Your task to perform on an android device: toggle pop-ups in chrome Image 0: 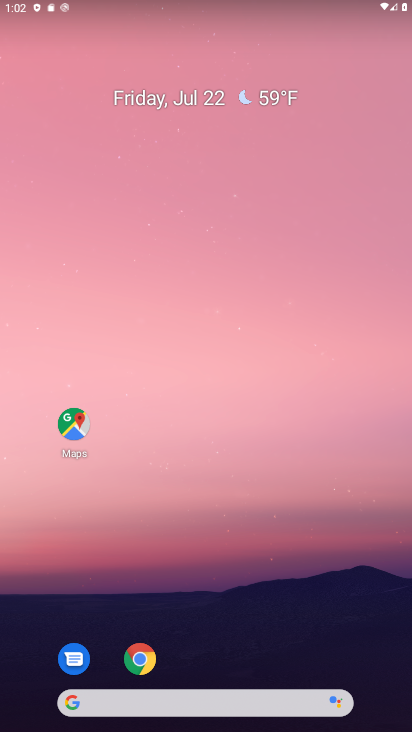
Step 0: click (139, 657)
Your task to perform on an android device: toggle pop-ups in chrome Image 1: 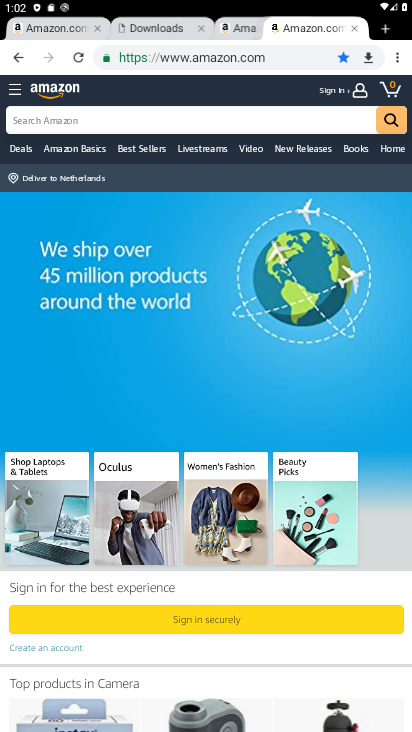
Step 1: click (396, 46)
Your task to perform on an android device: toggle pop-ups in chrome Image 2: 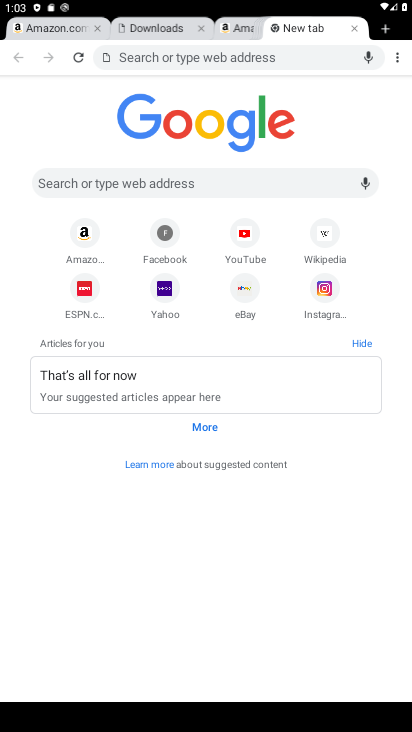
Step 2: click (395, 51)
Your task to perform on an android device: toggle pop-ups in chrome Image 3: 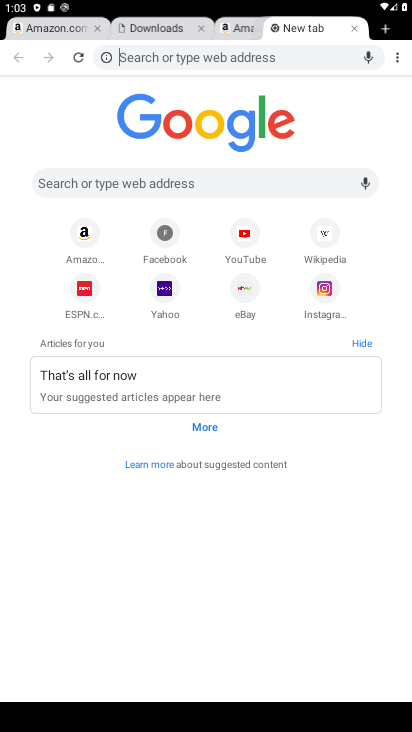
Step 3: drag from (394, 63) to (307, 259)
Your task to perform on an android device: toggle pop-ups in chrome Image 4: 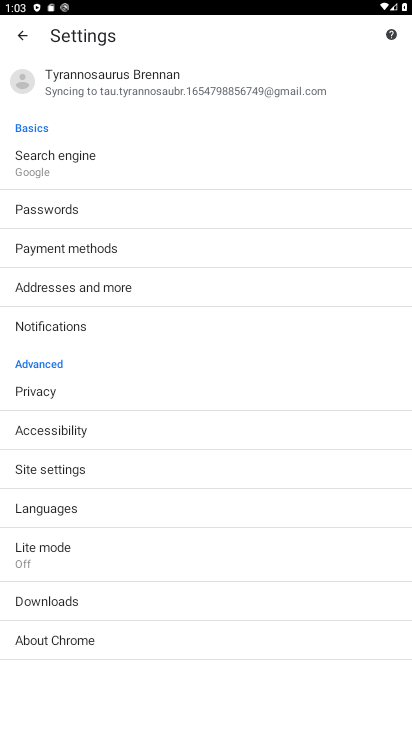
Step 4: click (75, 467)
Your task to perform on an android device: toggle pop-ups in chrome Image 5: 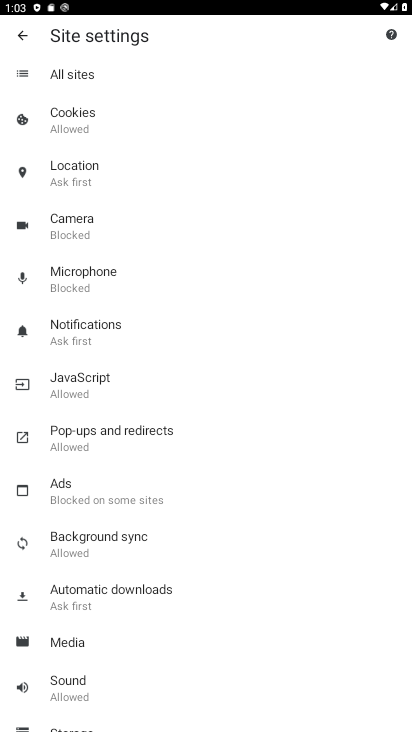
Step 5: click (141, 444)
Your task to perform on an android device: toggle pop-ups in chrome Image 6: 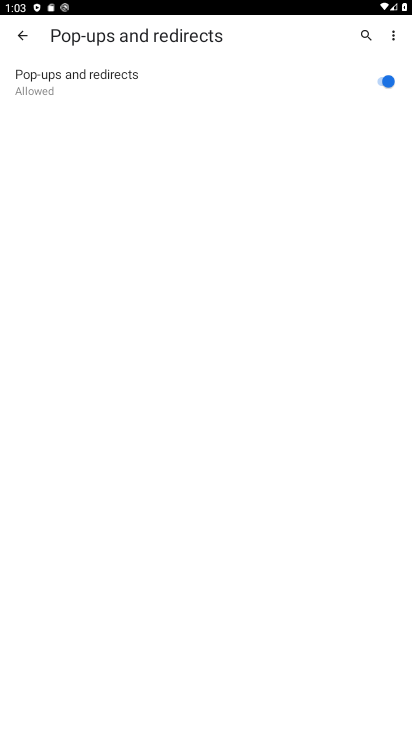
Step 6: click (383, 81)
Your task to perform on an android device: toggle pop-ups in chrome Image 7: 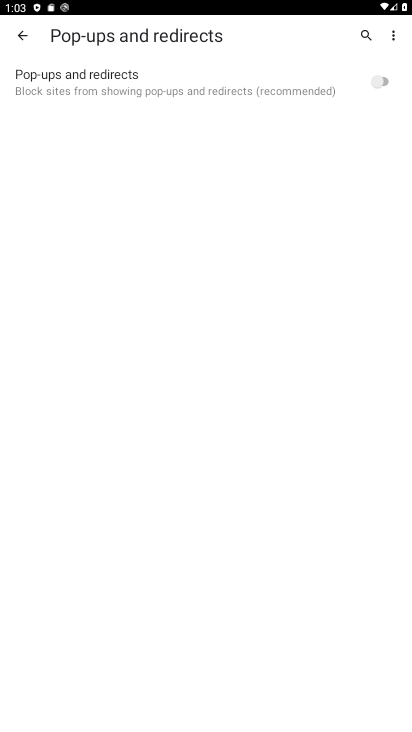
Step 7: task complete